Your task to perform on an android device: Turn off the flashlight Image 0: 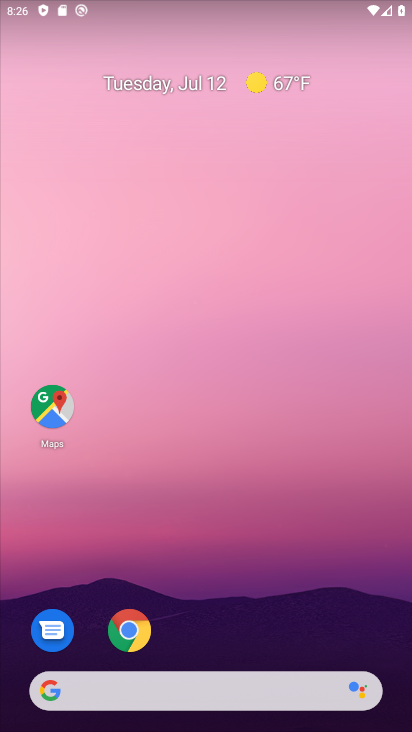
Step 0: drag from (349, 8) to (310, 395)
Your task to perform on an android device: Turn off the flashlight Image 1: 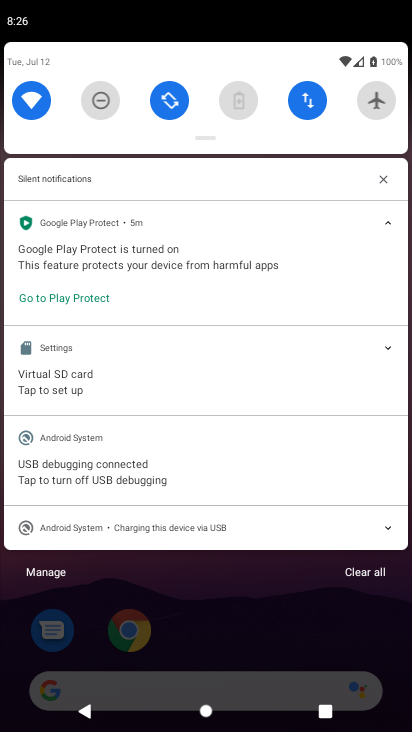
Step 1: drag from (269, 119) to (227, 494)
Your task to perform on an android device: Turn off the flashlight Image 2: 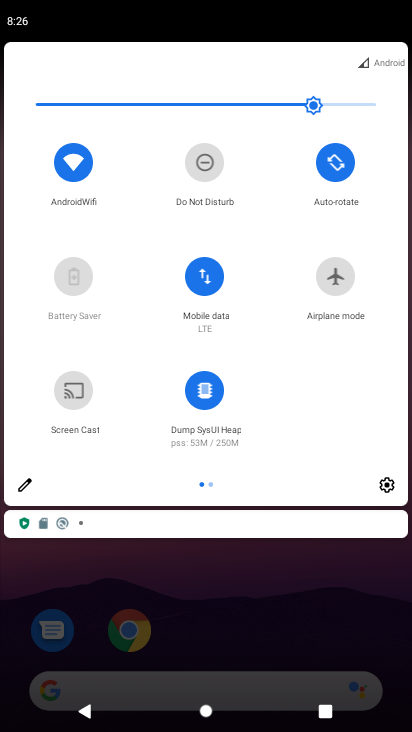
Step 2: drag from (348, 349) to (77, 342)
Your task to perform on an android device: Turn off the flashlight Image 3: 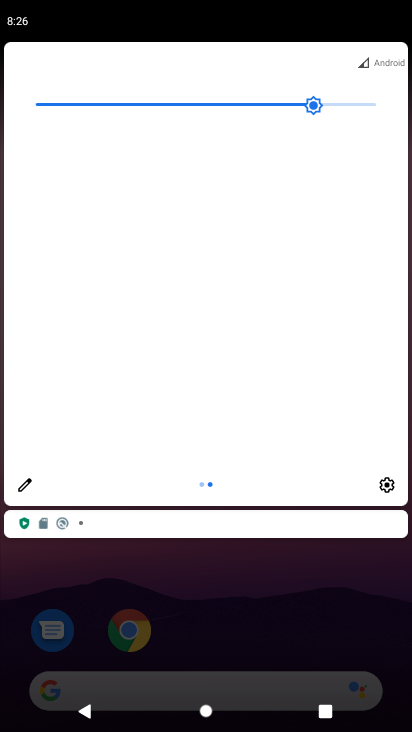
Step 3: click (27, 489)
Your task to perform on an android device: Turn off the flashlight Image 4: 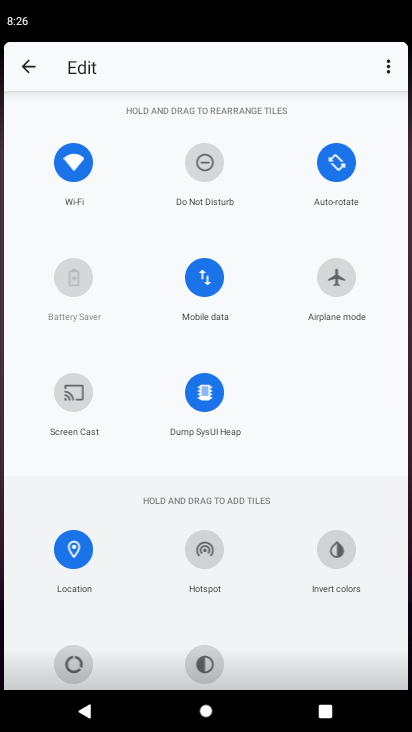
Step 4: task complete